Your task to perform on an android device: open app "Instagram" (install if not already installed) and enter user name: "nobler@yahoo.com" and password: "foraging" Image 0: 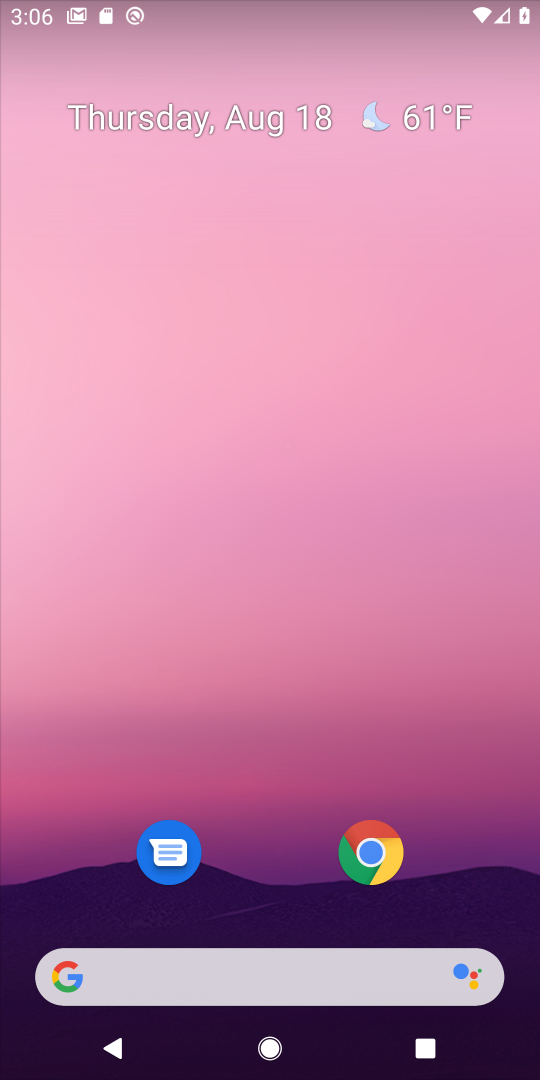
Step 0: drag from (288, 876) to (288, 97)
Your task to perform on an android device: open app "Instagram" (install if not already installed) and enter user name: "nobler@yahoo.com" and password: "foraging" Image 1: 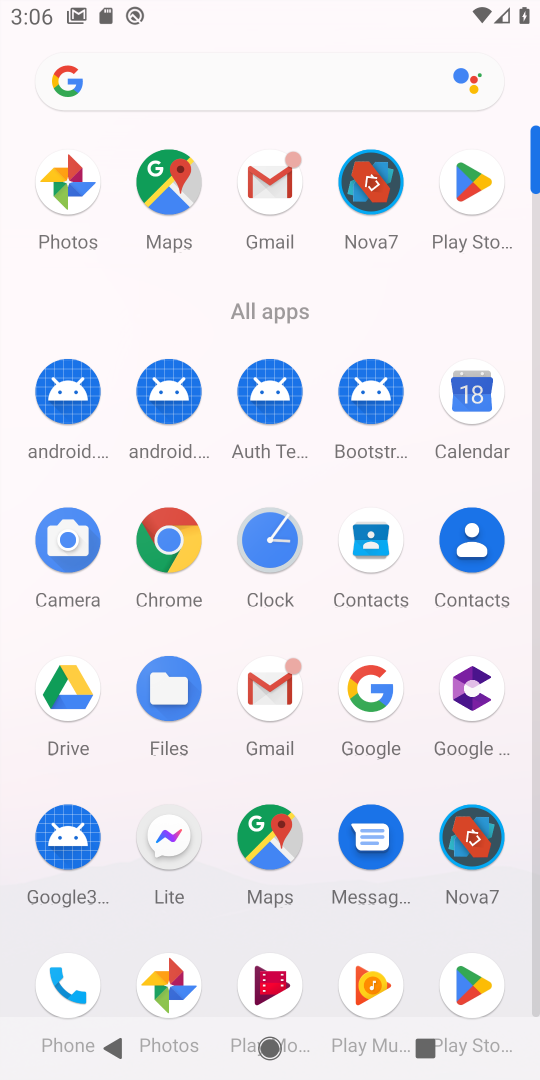
Step 1: click (464, 180)
Your task to perform on an android device: open app "Instagram" (install if not already installed) and enter user name: "nobler@yahoo.com" and password: "foraging" Image 2: 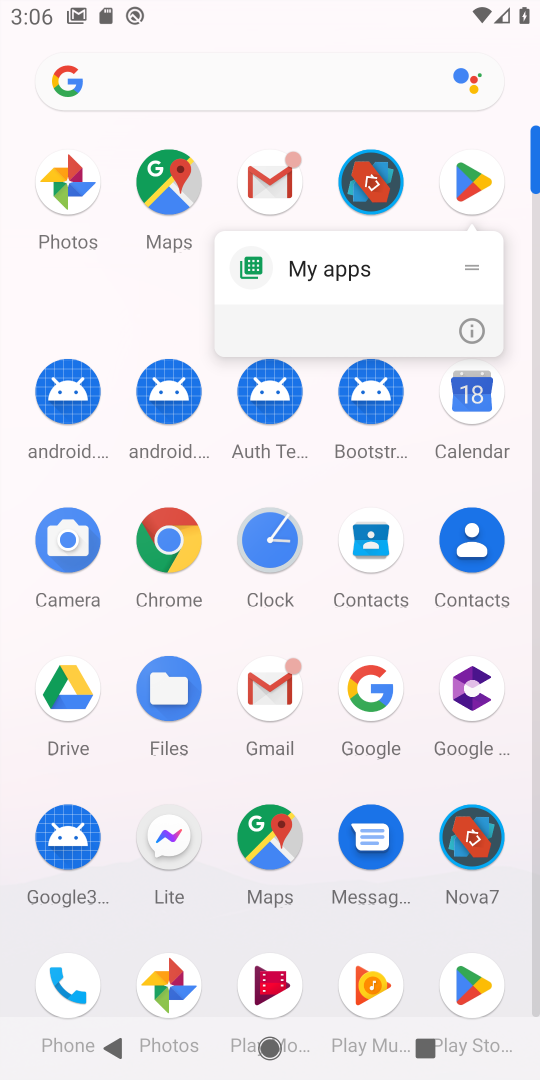
Step 2: click (472, 175)
Your task to perform on an android device: open app "Instagram" (install if not already installed) and enter user name: "nobler@yahoo.com" and password: "foraging" Image 3: 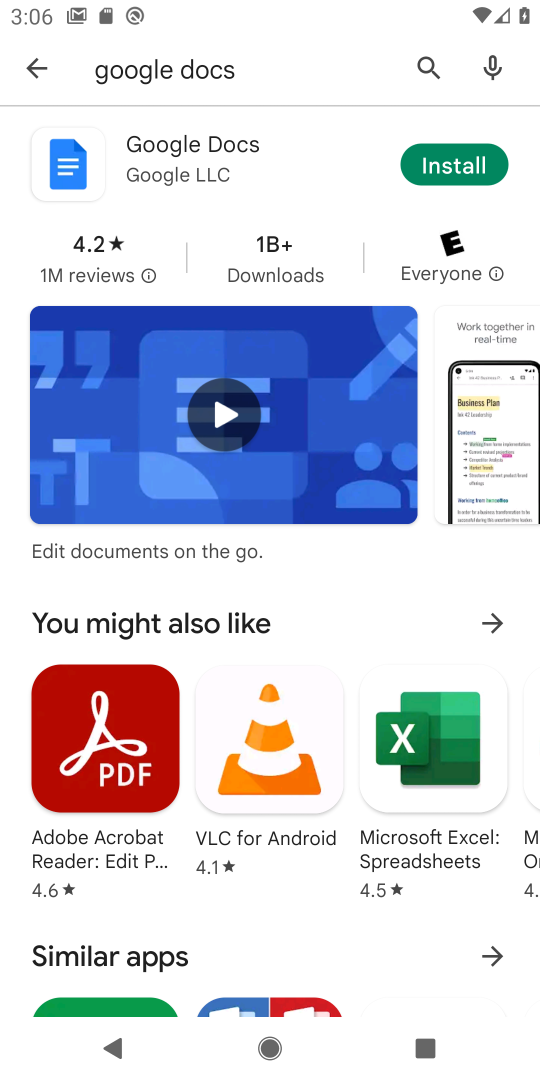
Step 3: click (434, 69)
Your task to perform on an android device: open app "Instagram" (install if not already installed) and enter user name: "nobler@yahoo.com" and password: "foraging" Image 4: 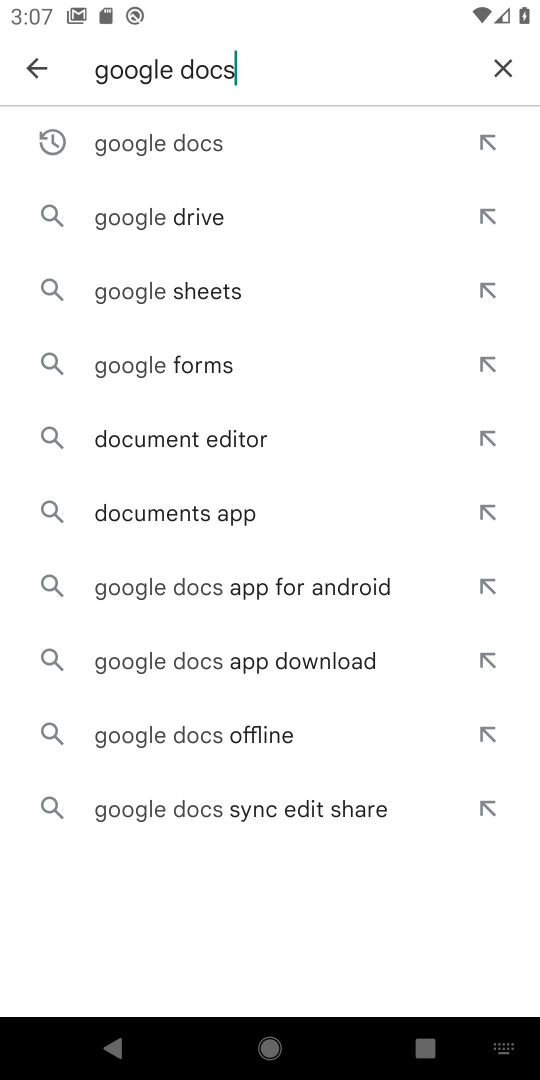
Step 4: click (503, 71)
Your task to perform on an android device: open app "Instagram" (install if not already installed) and enter user name: "nobler@yahoo.com" and password: "foraging" Image 5: 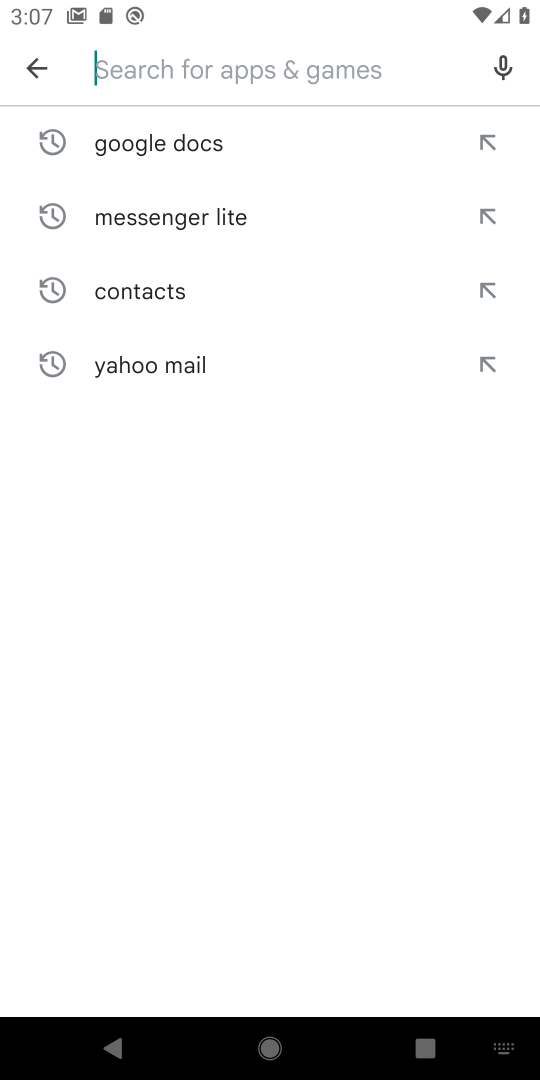
Step 5: type "Instagram"
Your task to perform on an android device: open app "Instagram" (install if not already installed) and enter user name: "nobler@yahoo.com" and password: "foraging" Image 6: 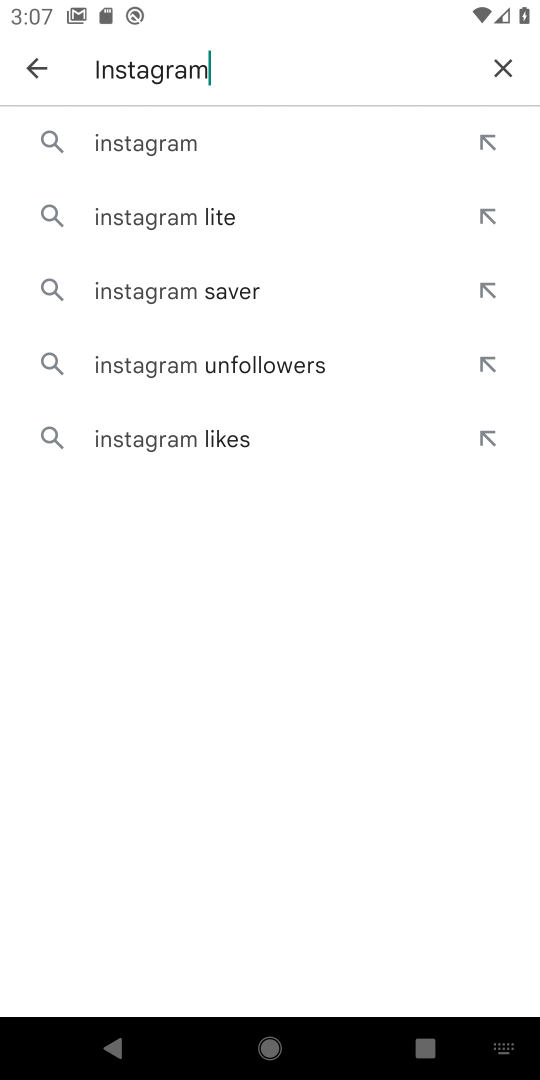
Step 6: click (184, 143)
Your task to perform on an android device: open app "Instagram" (install if not already installed) and enter user name: "nobler@yahoo.com" and password: "foraging" Image 7: 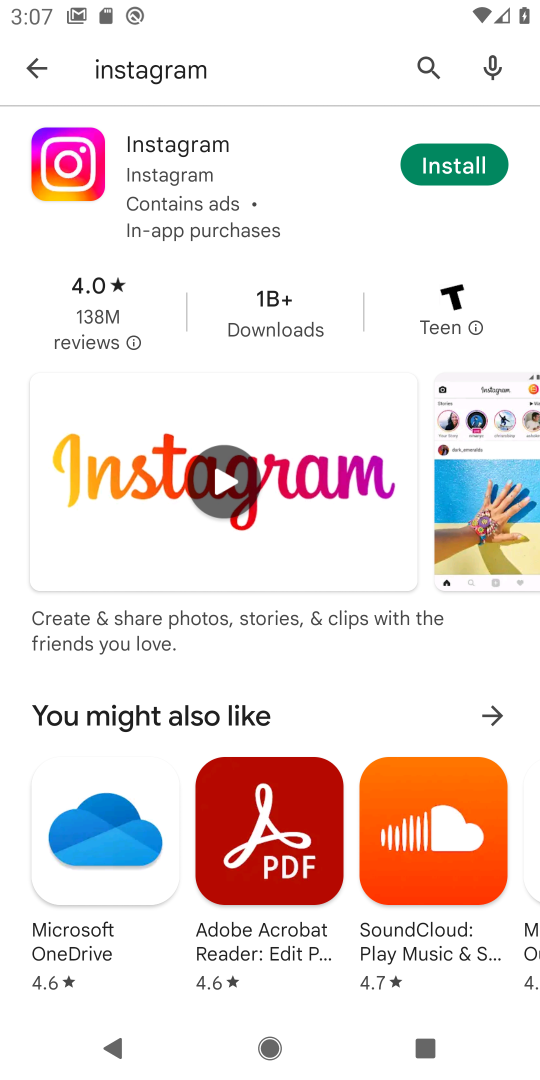
Step 7: click (465, 166)
Your task to perform on an android device: open app "Instagram" (install if not already installed) and enter user name: "nobler@yahoo.com" and password: "foraging" Image 8: 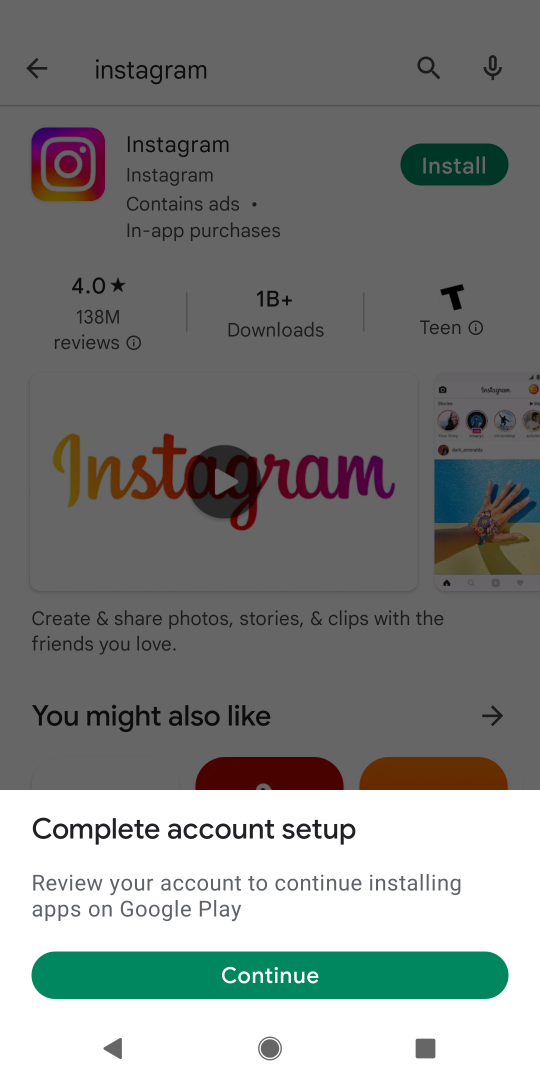
Step 8: click (270, 985)
Your task to perform on an android device: open app "Instagram" (install if not already installed) and enter user name: "nobler@yahoo.com" and password: "foraging" Image 9: 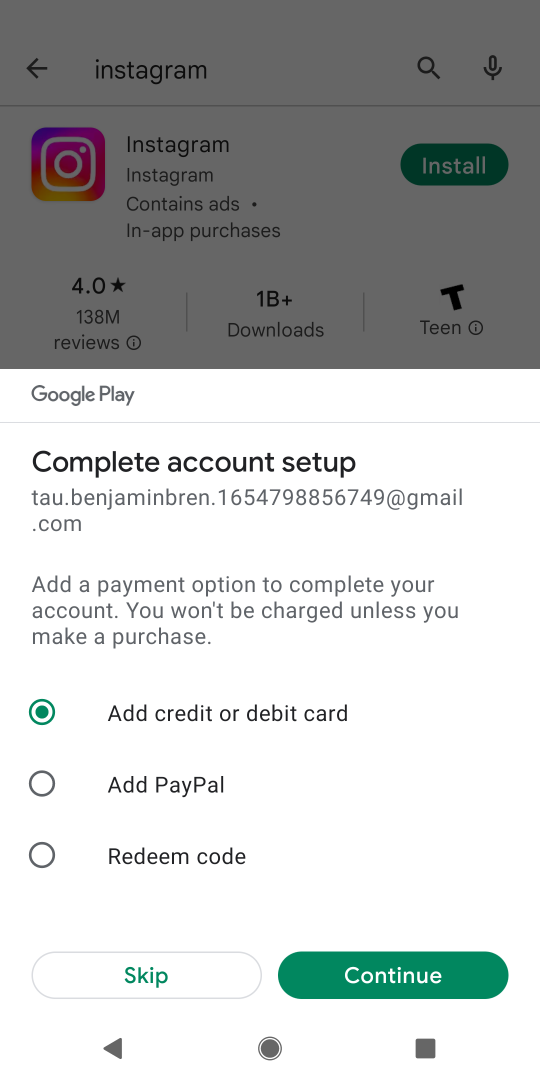
Step 9: click (141, 977)
Your task to perform on an android device: open app "Instagram" (install if not already installed) and enter user name: "nobler@yahoo.com" and password: "foraging" Image 10: 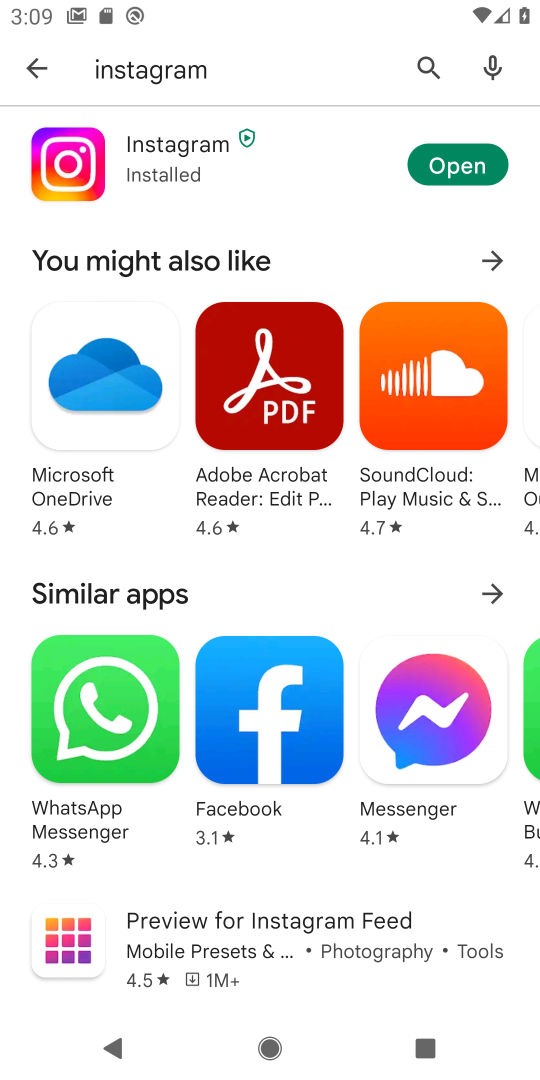
Step 10: click (447, 162)
Your task to perform on an android device: open app "Instagram" (install if not already installed) and enter user name: "nobler@yahoo.com" and password: "foraging" Image 11: 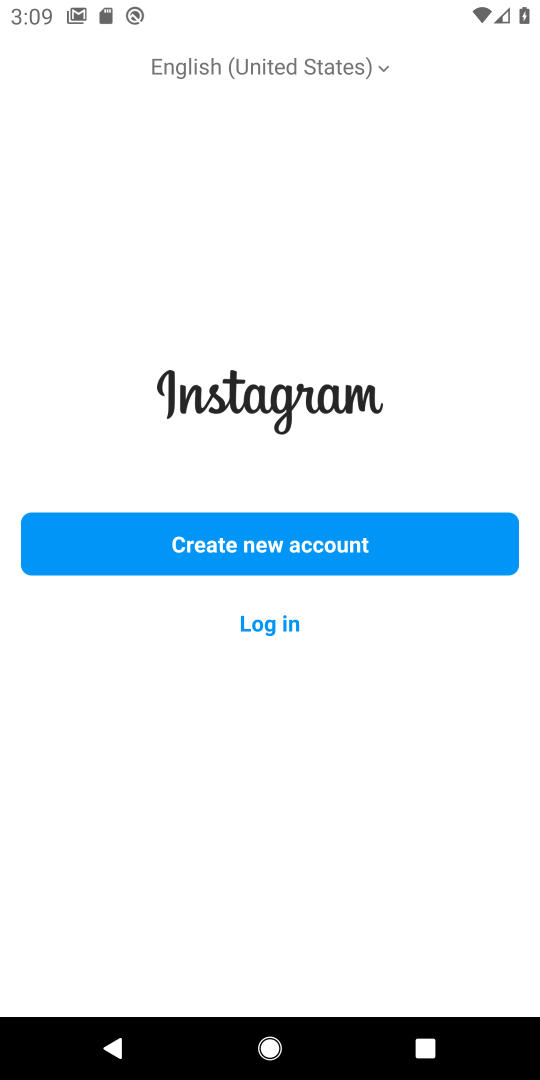
Step 11: click (277, 627)
Your task to perform on an android device: open app "Instagram" (install if not already installed) and enter user name: "nobler@yahoo.com" and password: "foraging" Image 12: 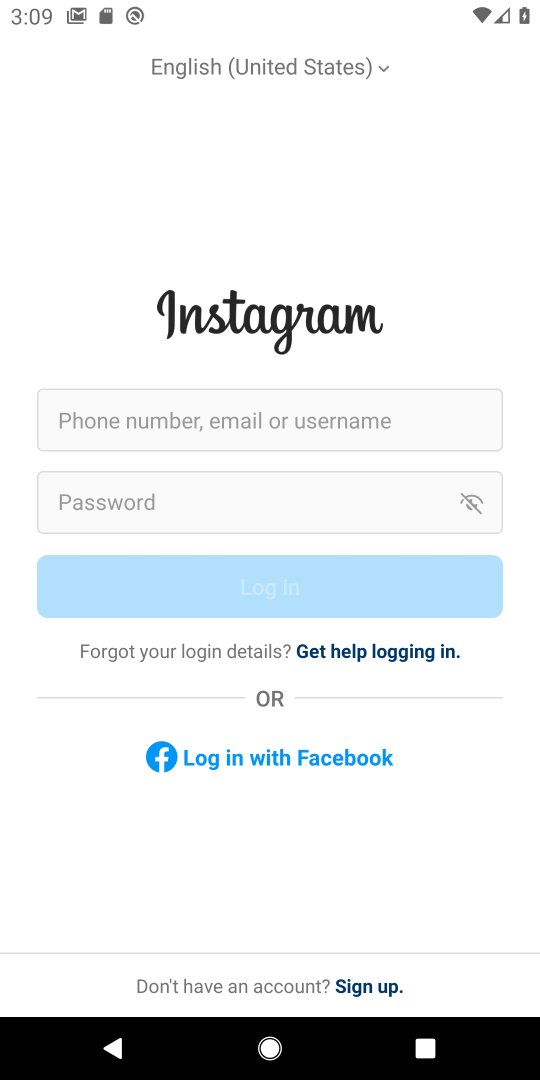
Step 12: click (124, 422)
Your task to perform on an android device: open app "Instagram" (install if not already installed) and enter user name: "nobler@yahoo.com" and password: "foraging" Image 13: 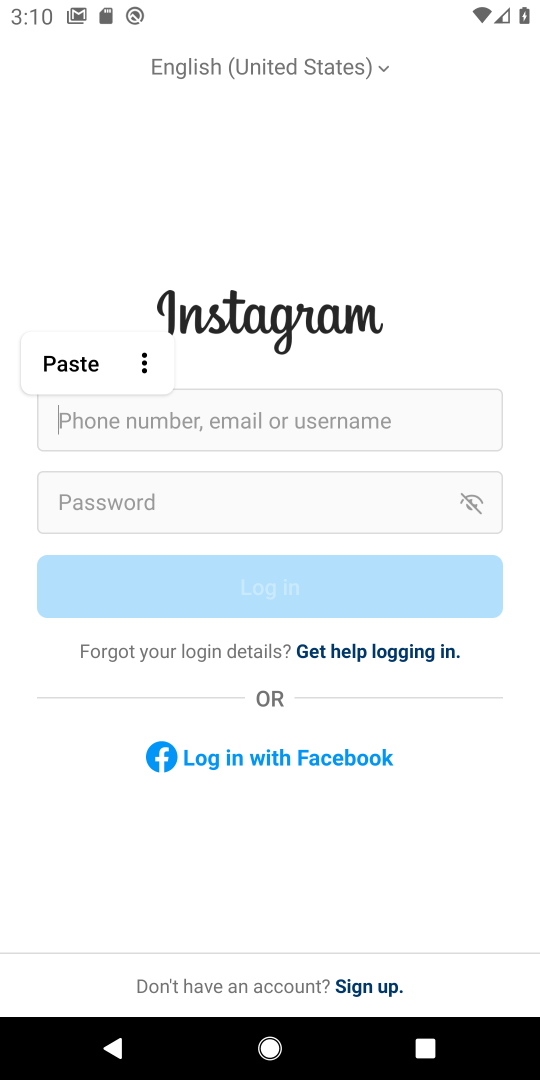
Step 13: type "nobler@yahoo.com"
Your task to perform on an android device: open app "Instagram" (install if not already installed) and enter user name: "nobler@yahoo.com" and password: "foraging" Image 14: 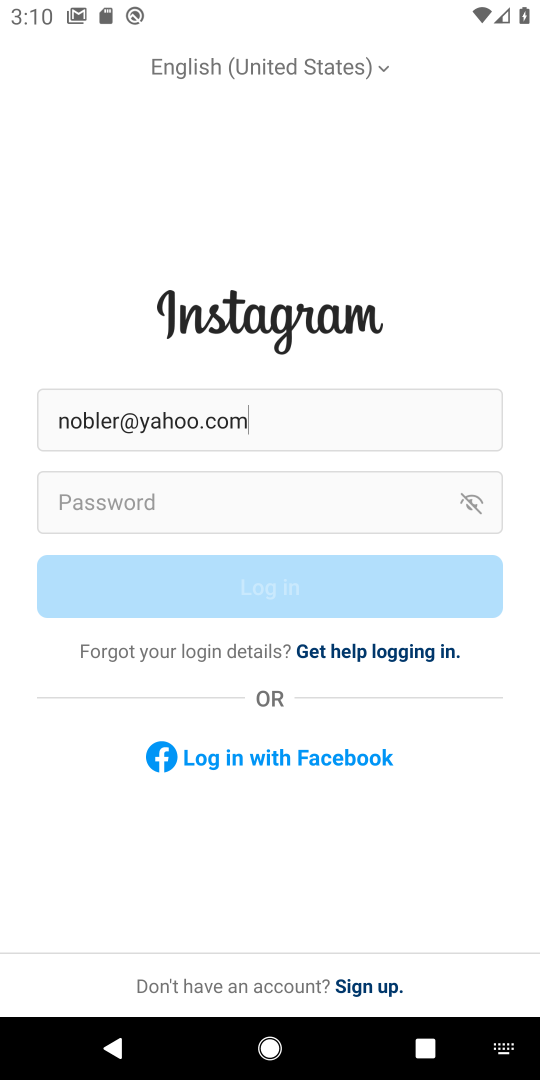
Step 14: click (175, 496)
Your task to perform on an android device: open app "Instagram" (install if not already installed) and enter user name: "nobler@yahoo.com" and password: "foraging" Image 15: 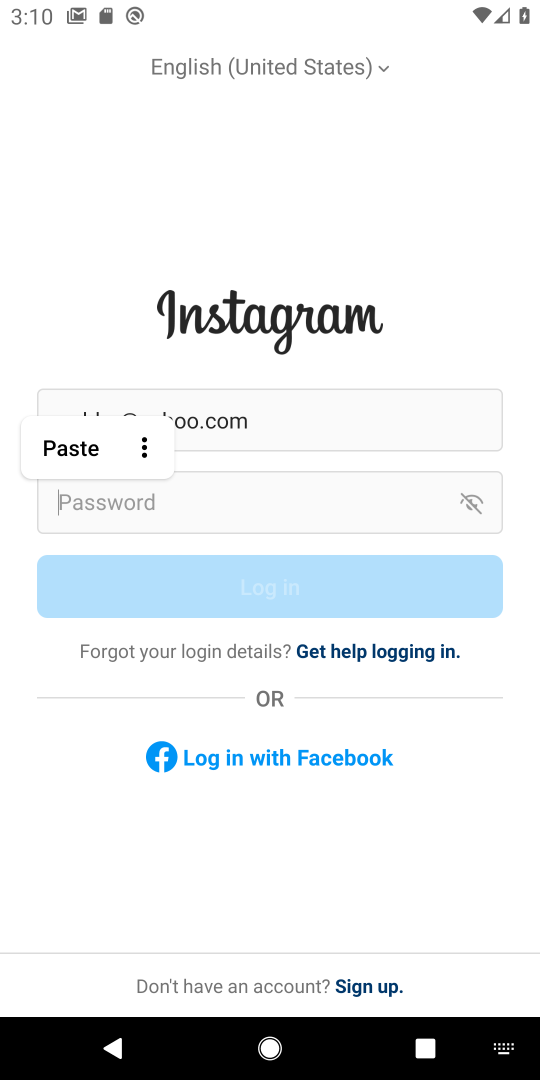
Step 15: type "foraging"
Your task to perform on an android device: open app "Instagram" (install if not already installed) and enter user name: "nobler@yahoo.com" and password: "foraging" Image 16: 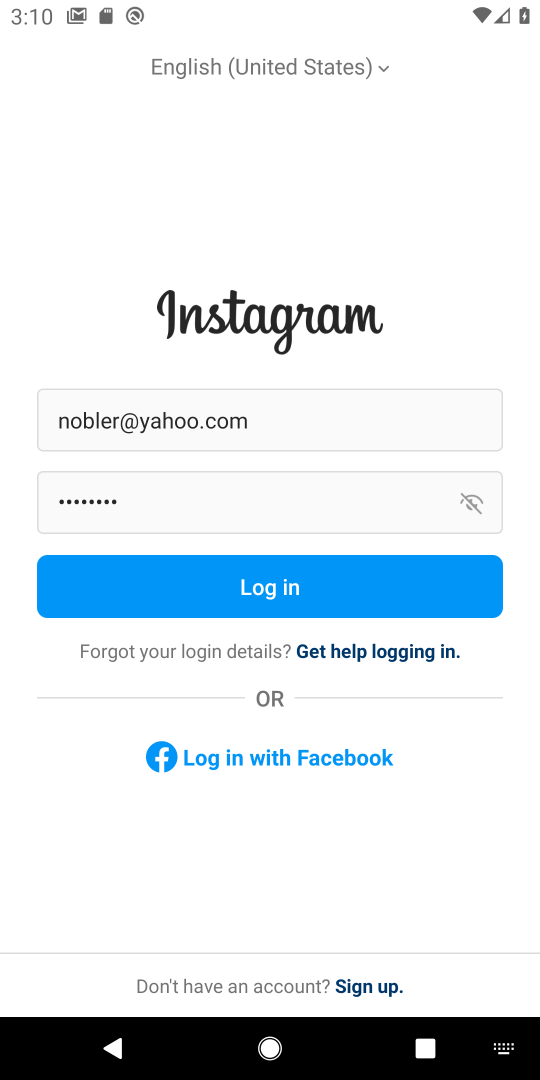
Step 16: click (270, 589)
Your task to perform on an android device: open app "Instagram" (install if not already installed) and enter user name: "nobler@yahoo.com" and password: "foraging" Image 17: 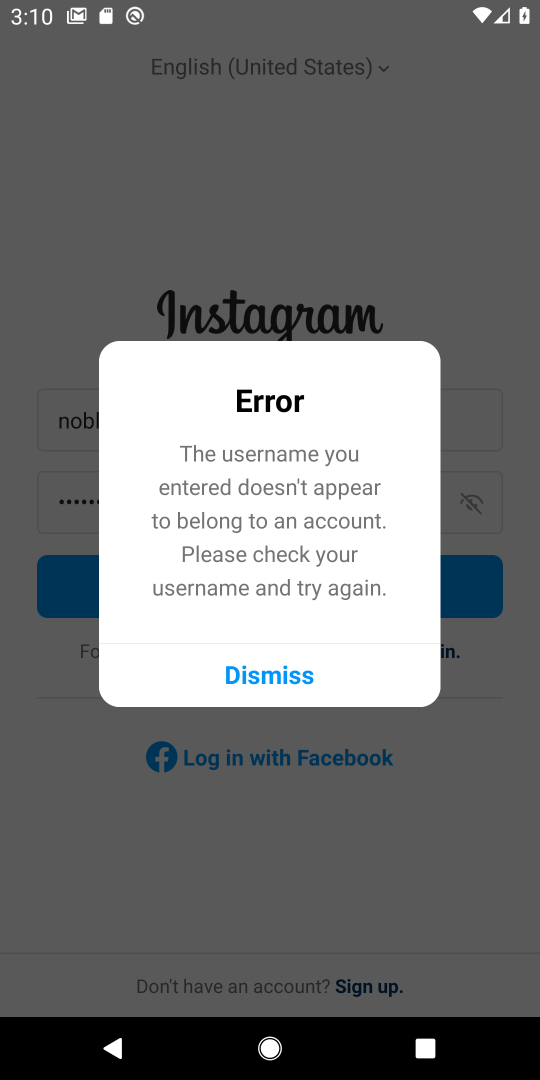
Step 17: click (275, 662)
Your task to perform on an android device: open app "Instagram" (install if not already installed) and enter user name: "nobler@yahoo.com" and password: "foraging" Image 18: 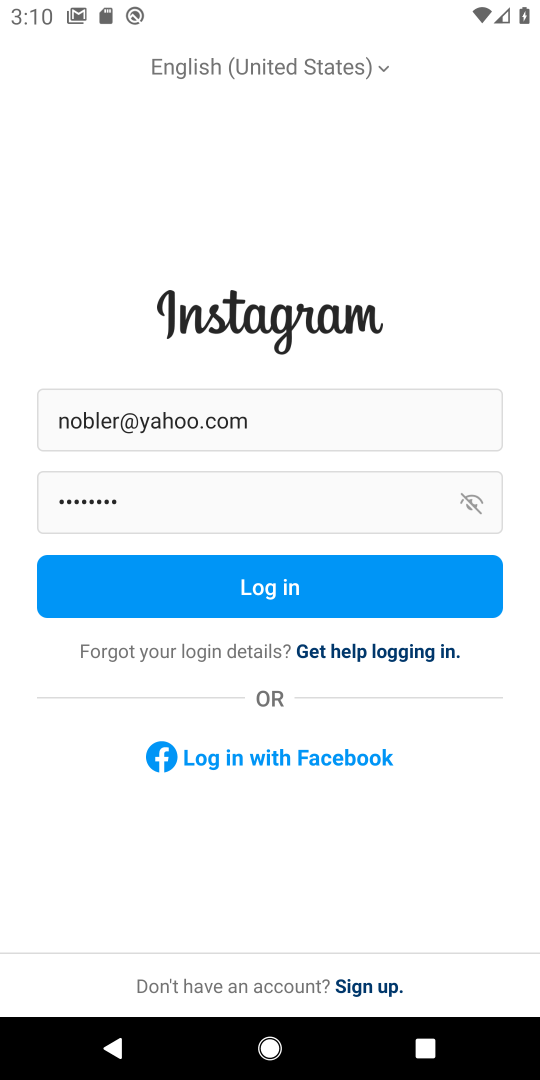
Step 18: task complete